Your task to perform on an android device: turn on wifi Image 0: 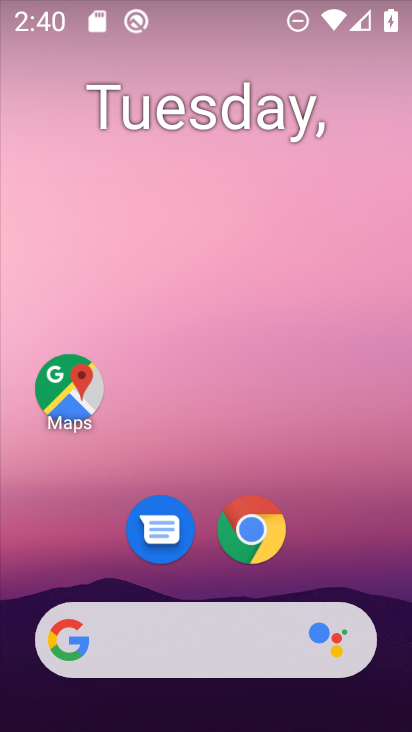
Step 0: drag from (130, 93) to (221, 461)
Your task to perform on an android device: turn on wifi Image 1: 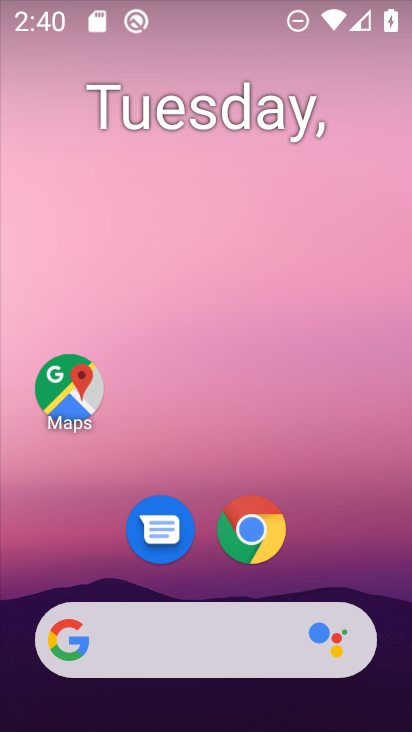
Step 1: task complete